Your task to perform on an android device: Empty the shopping cart on walmart.com. Add "dell xps" to the cart on walmart.com, then select checkout. Image 0: 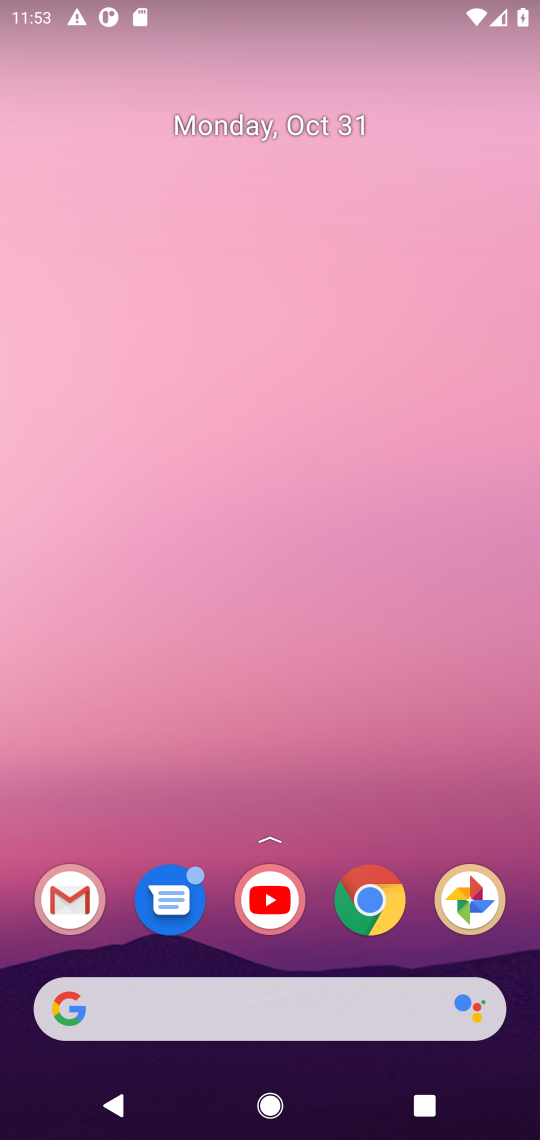
Step 0: click (385, 915)
Your task to perform on an android device: Empty the shopping cart on walmart.com. Add "dell xps" to the cart on walmart.com, then select checkout. Image 1: 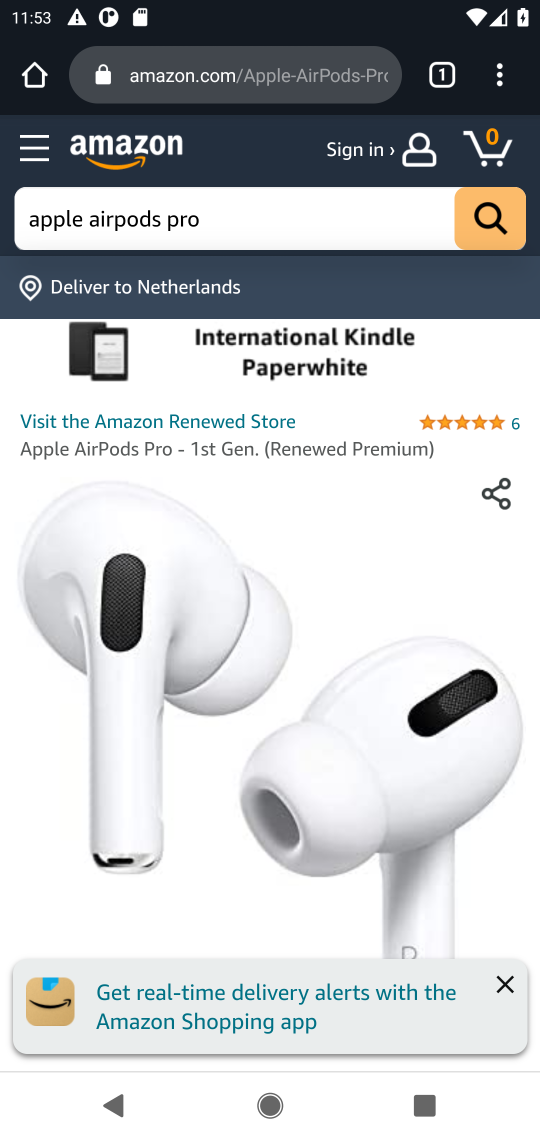
Step 1: click (241, 76)
Your task to perform on an android device: Empty the shopping cart on walmart.com. Add "dell xps" to the cart on walmart.com, then select checkout. Image 2: 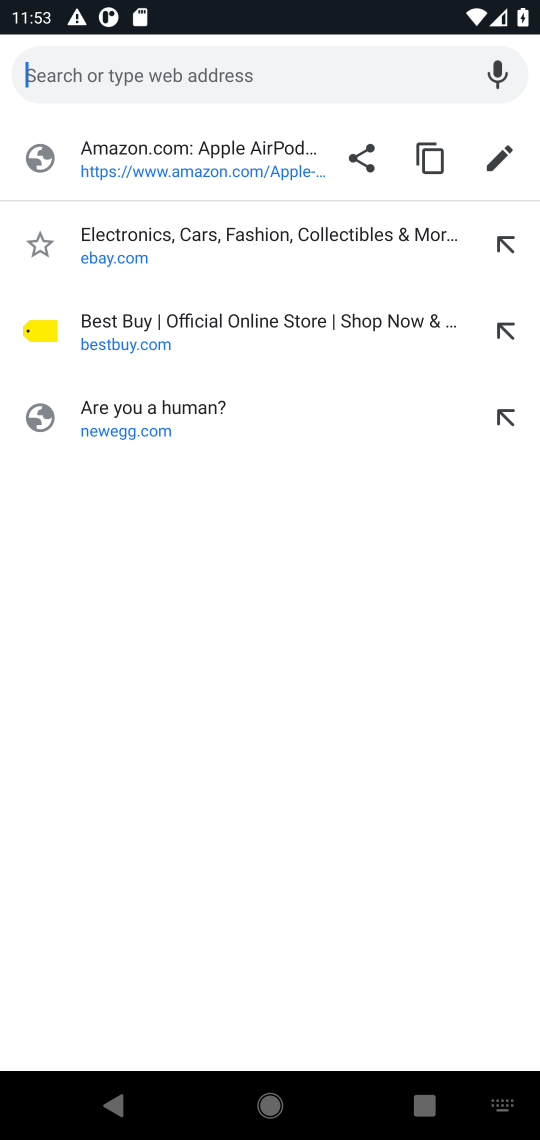
Step 2: type "walmart.com"
Your task to perform on an android device: Empty the shopping cart on walmart.com. Add "dell xps" to the cart on walmart.com, then select checkout. Image 3: 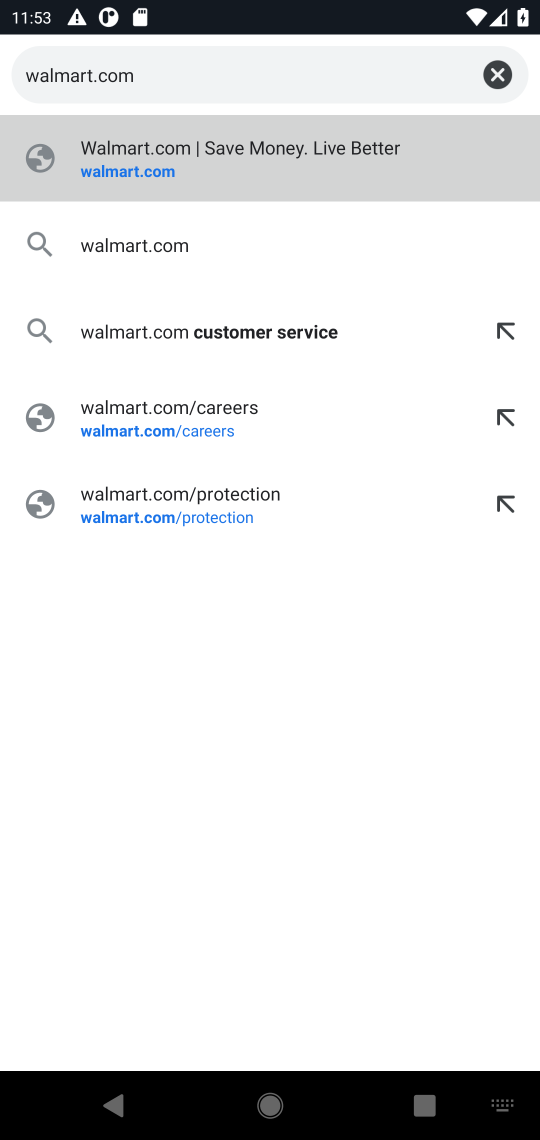
Step 3: press enter
Your task to perform on an android device: Empty the shopping cart on walmart.com. Add "dell xps" to the cart on walmart.com, then select checkout. Image 4: 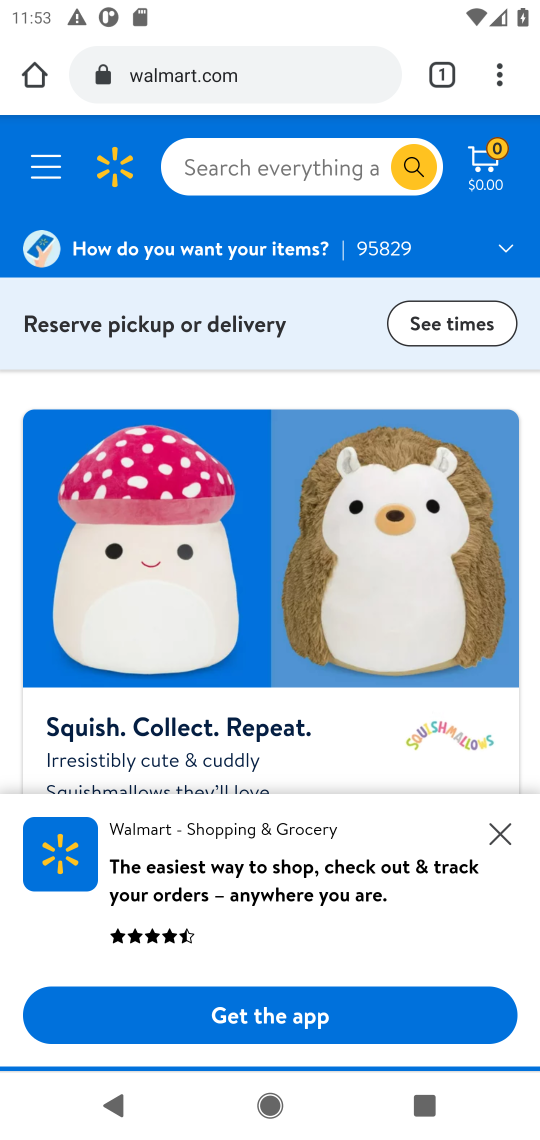
Step 4: drag from (293, 762) to (362, 294)
Your task to perform on an android device: Empty the shopping cart on walmart.com. Add "dell xps" to the cart on walmart.com, then select checkout. Image 5: 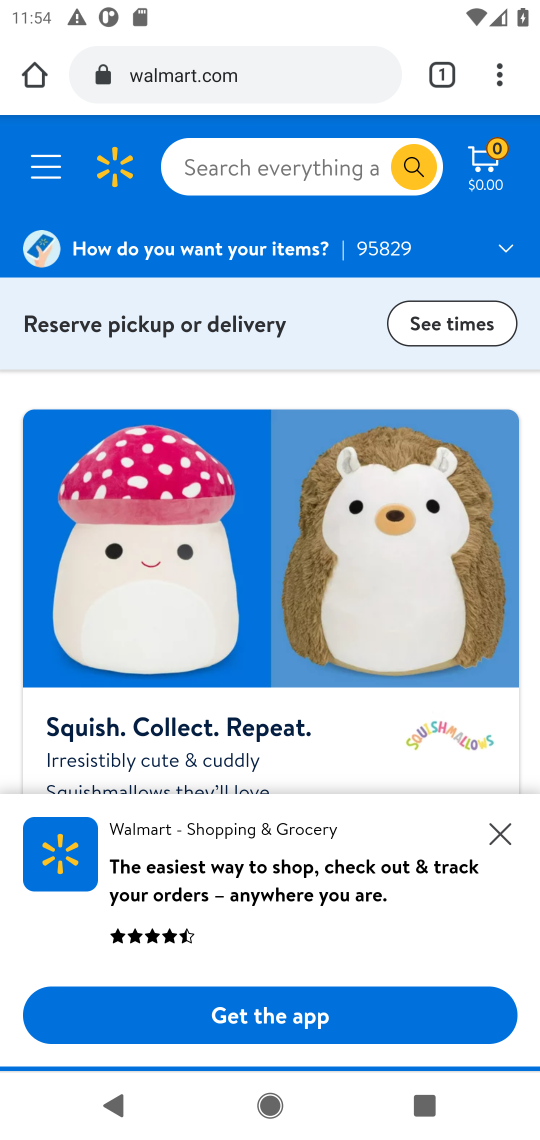
Step 5: click (486, 175)
Your task to perform on an android device: Empty the shopping cart on walmart.com. Add "dell xps" to the cart on walmart.com, then select checkout. Image 6: 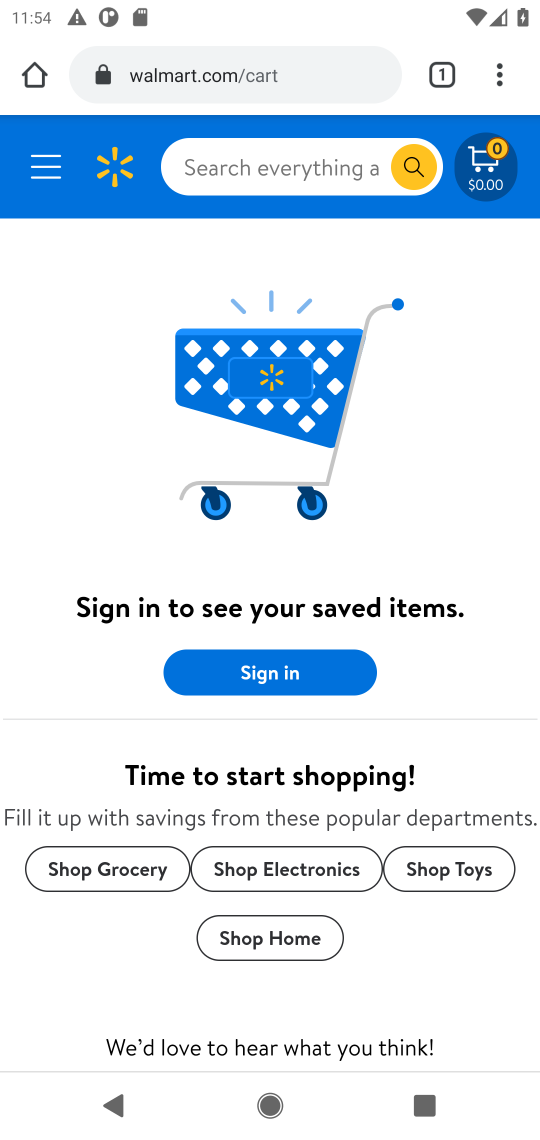
Step 6: click (268, 165)
Your task to perform on an android device: Empty the shopping cart on walmart.com. Add "dell xps" to the cart on walmart.com, then select checkout. Image 7: 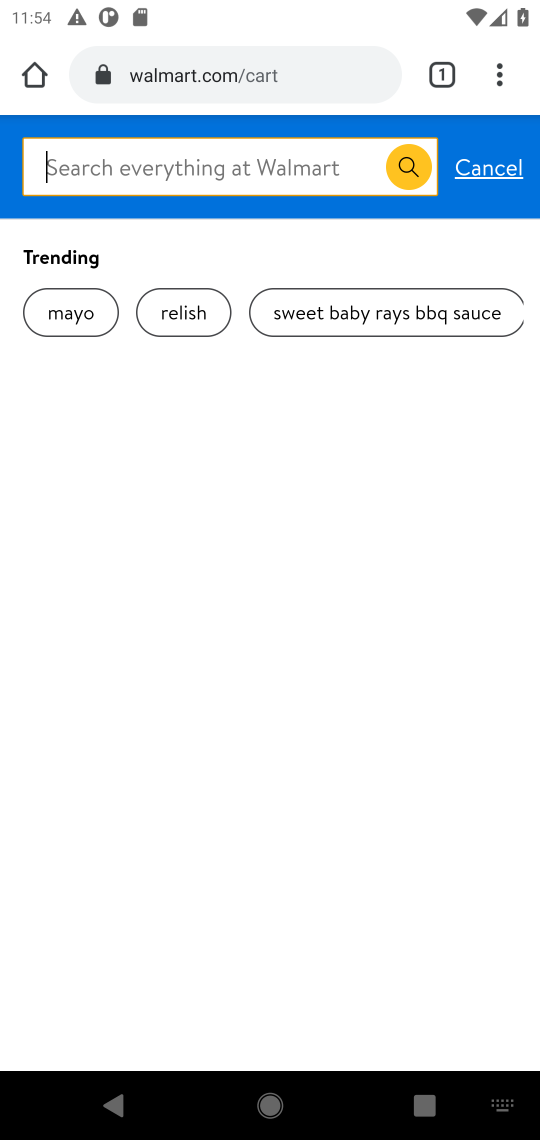
Step 7: type "dell xps"
Your task to perform on an android device: Empty the shopping cart on walmart.com. Add "dell xps" to the cart on walmart.com, then select checkout. Image 8: 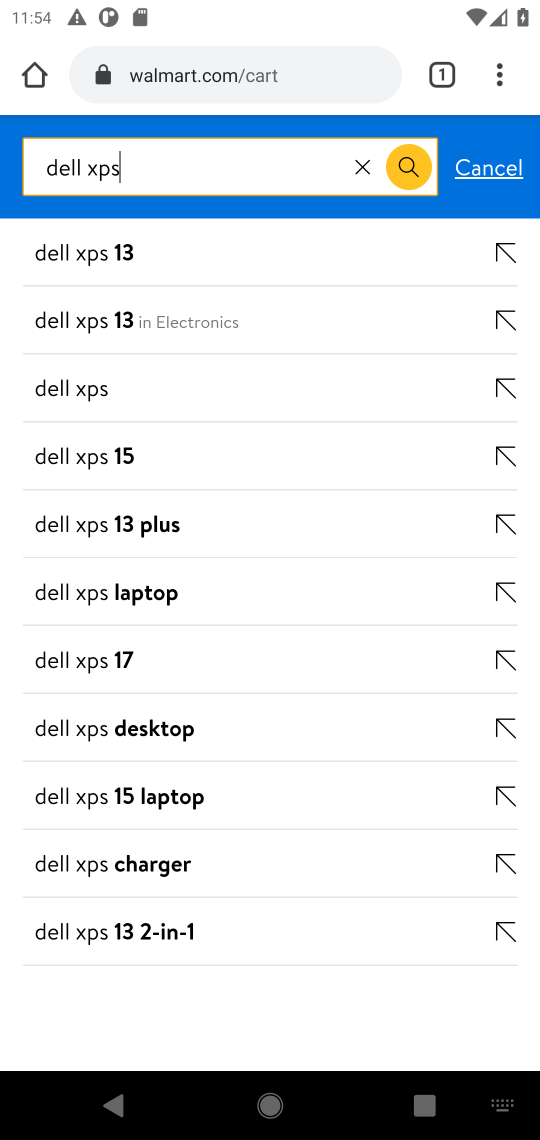
Step 8: press enter
Your task to perform on an android device: Empty the shopping cart on walmart.com. Add "dell xps" to the cart on walmart.com, then select checkout. Image 9: 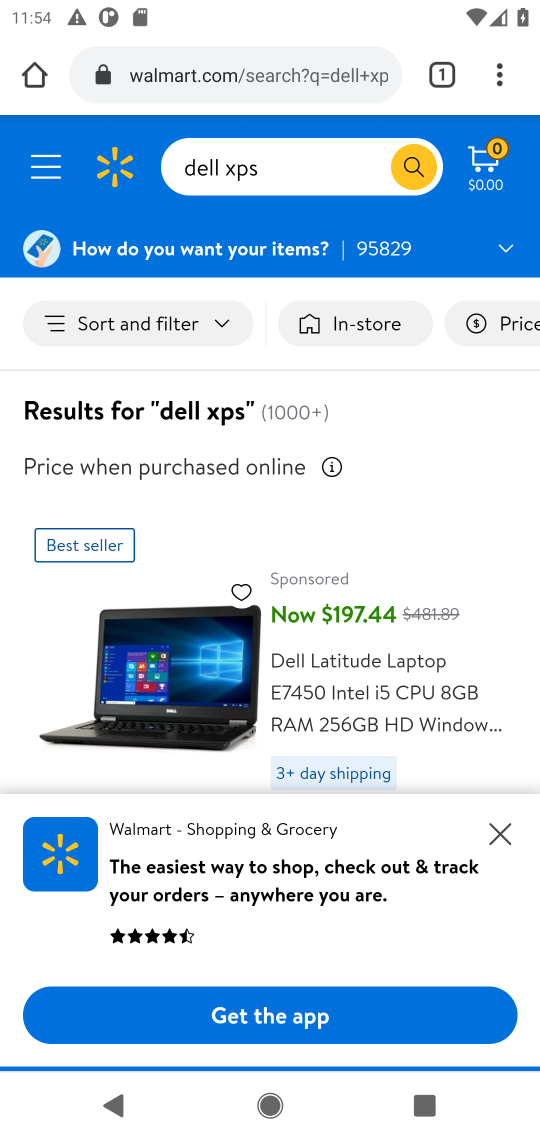
Step 9: task complete